Your task to perform on an android device: Open network settings Image 0: 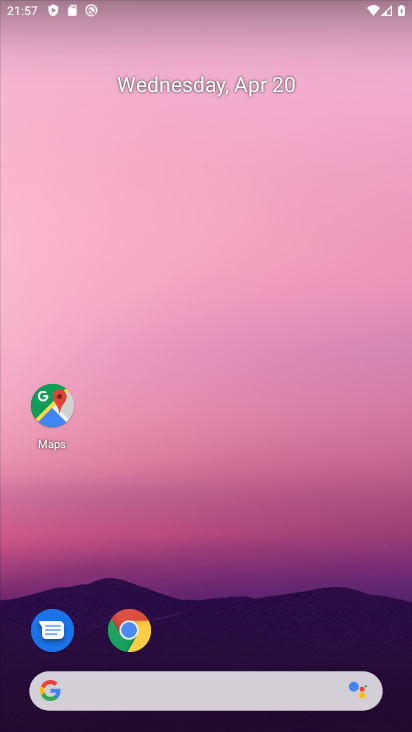
Step 0: drag from (264, 631) to (230, 97)
Your task to perform on an android device: Open network settings Image 1: 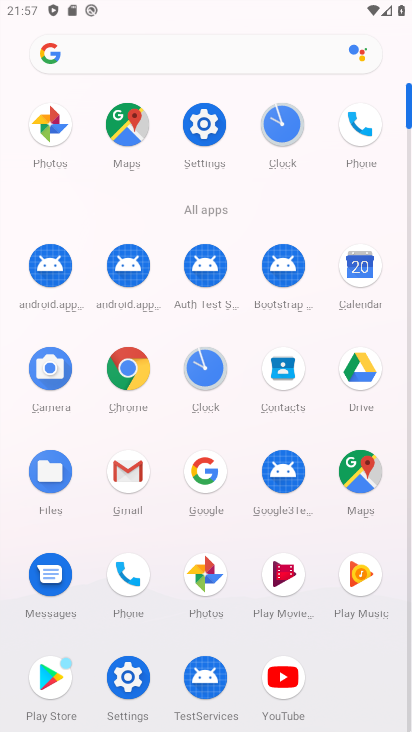
Step 1: click (208, 112)
Your task to perform on an android device: Open network settings Image 2: 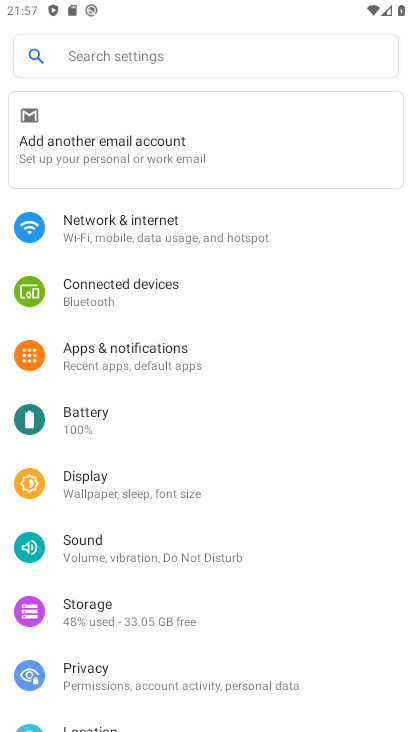
Step 2: click (178, 223)
Your task to perform on an android device: Open network settings Image 3: 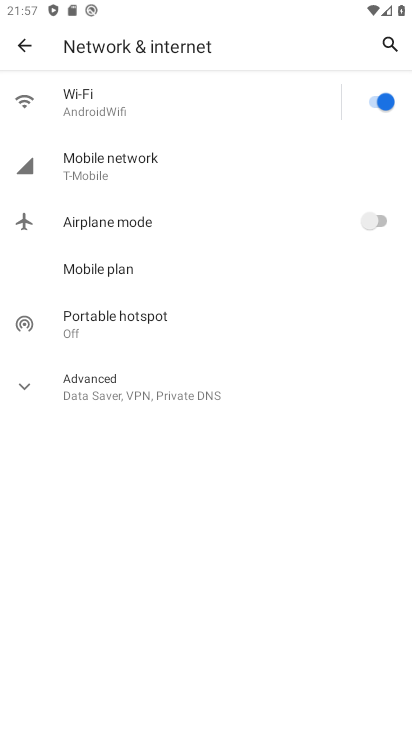
Step 3: task complete